Your task to perform on an android device: Turn on the flashlight Image 0: 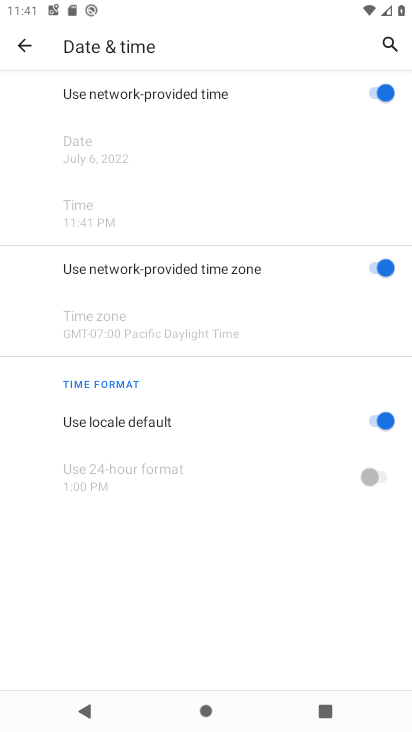
Step 0: press home button
Your task to perform on an android device: Turn on the flashlight Image 1: 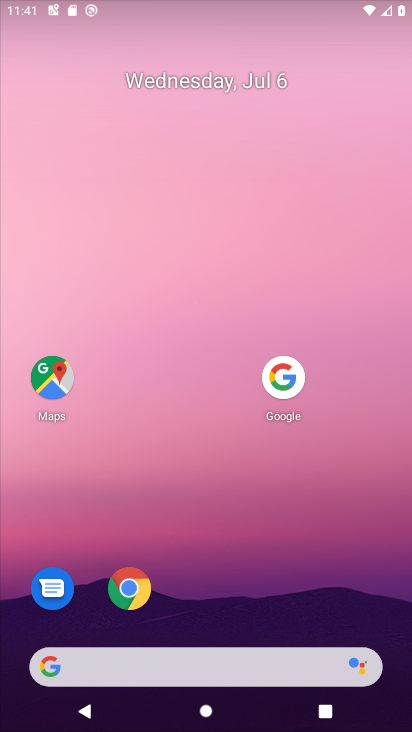
Step 1: click (133, 588)
Your task to perform on an android device: Turn on the flashlight Image 2: 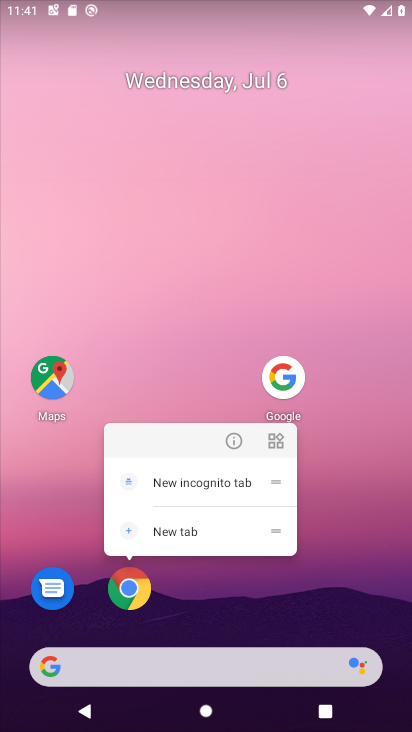
Step 2: task complete